Your task to perform on an android device: delete browsing data in the chrome app Image 0: 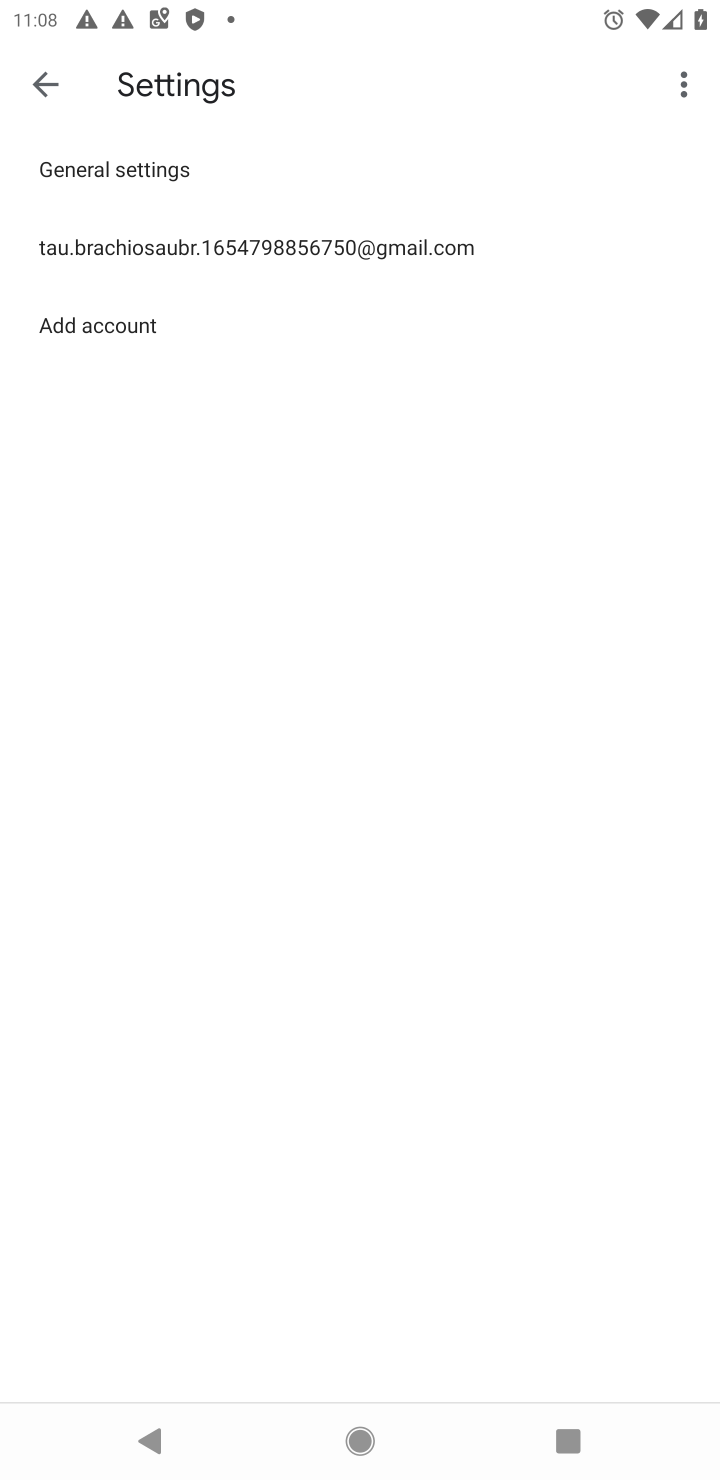
Step 0: press home button
Your task to perform on an android device: delete browsing data in the chrome app Image 1: 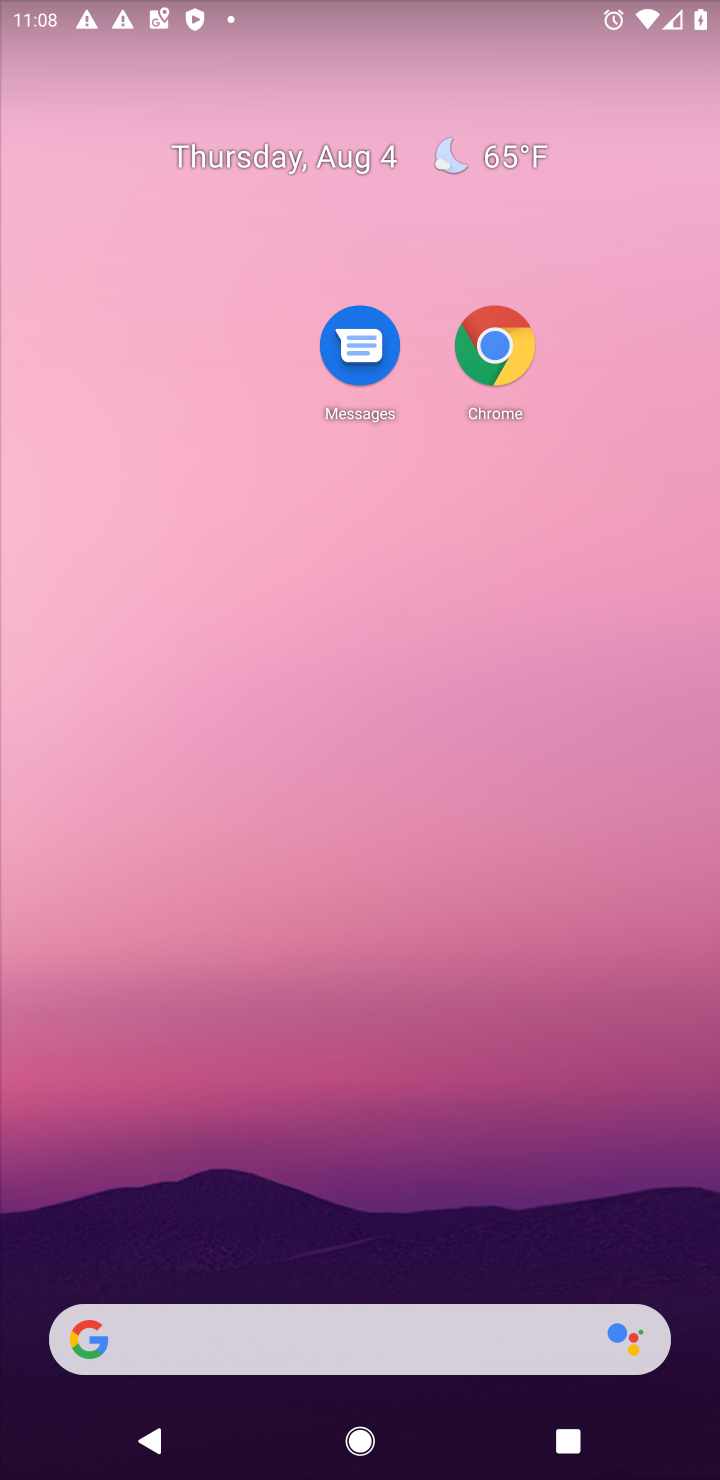
Step 1: drag from (315, 1009) to (361, 0)
Your task to perform on an android device: delete browsing data in the chrome app Image 2: 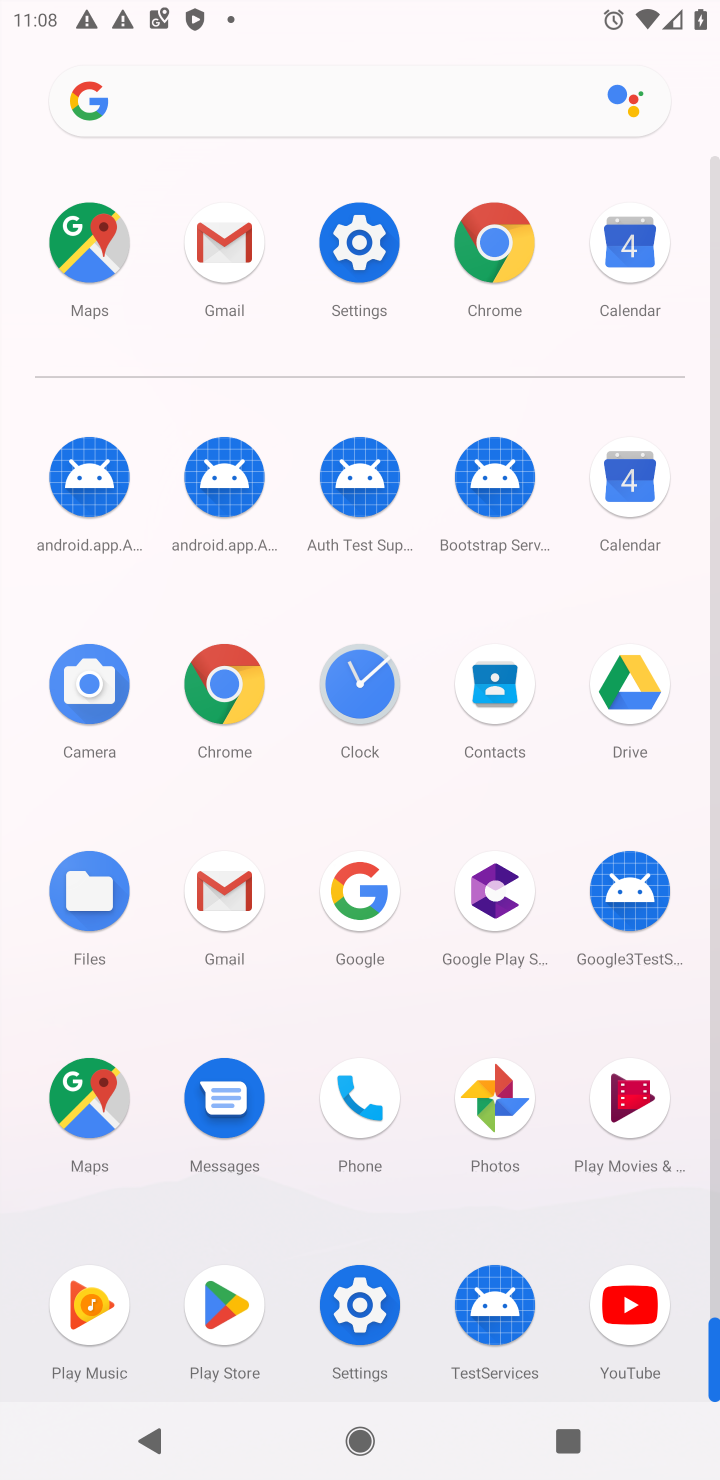
Step 2: click (482, 256)
Your task to perform on an android device: delete browsing data in the chrome app Image 3: 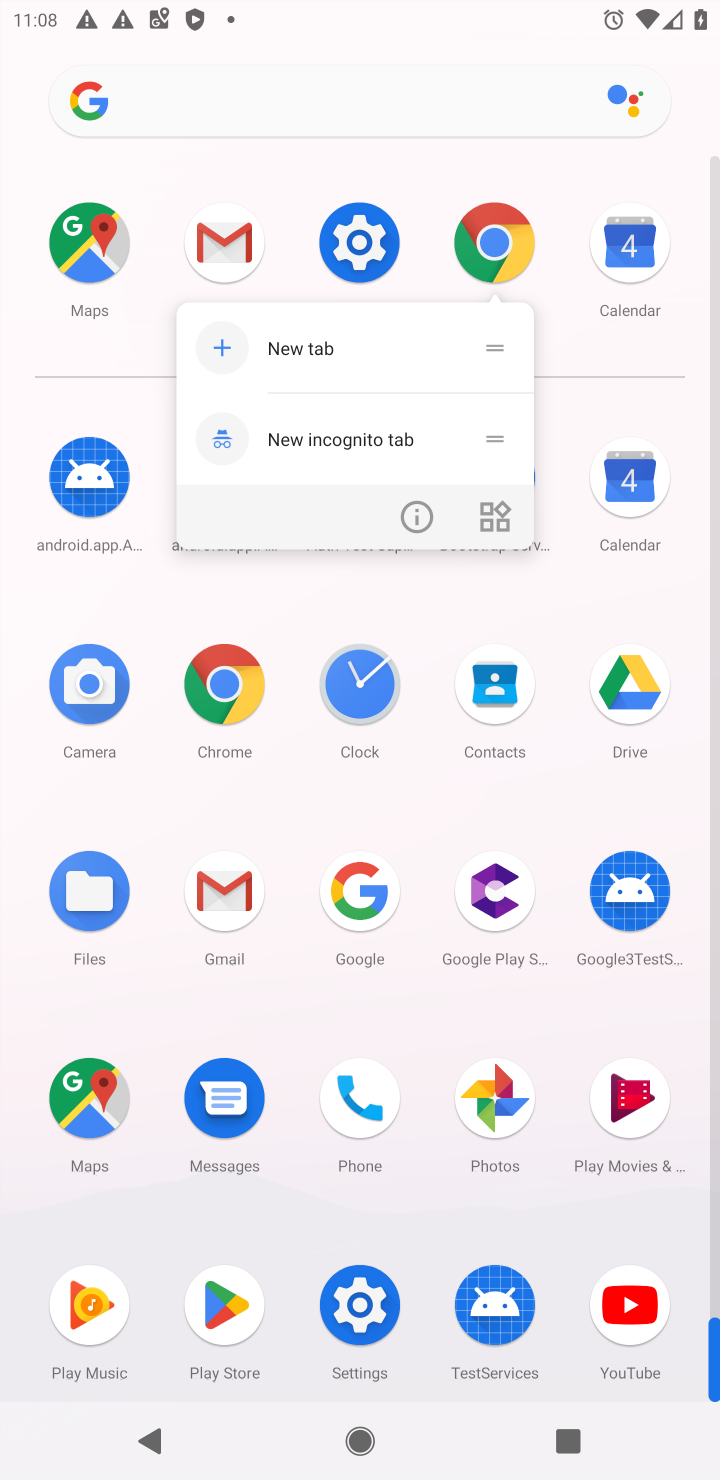
Step 3: click (461, 232)
Your task to perform on an android device: delete browsing data in the chrome app Image 4: 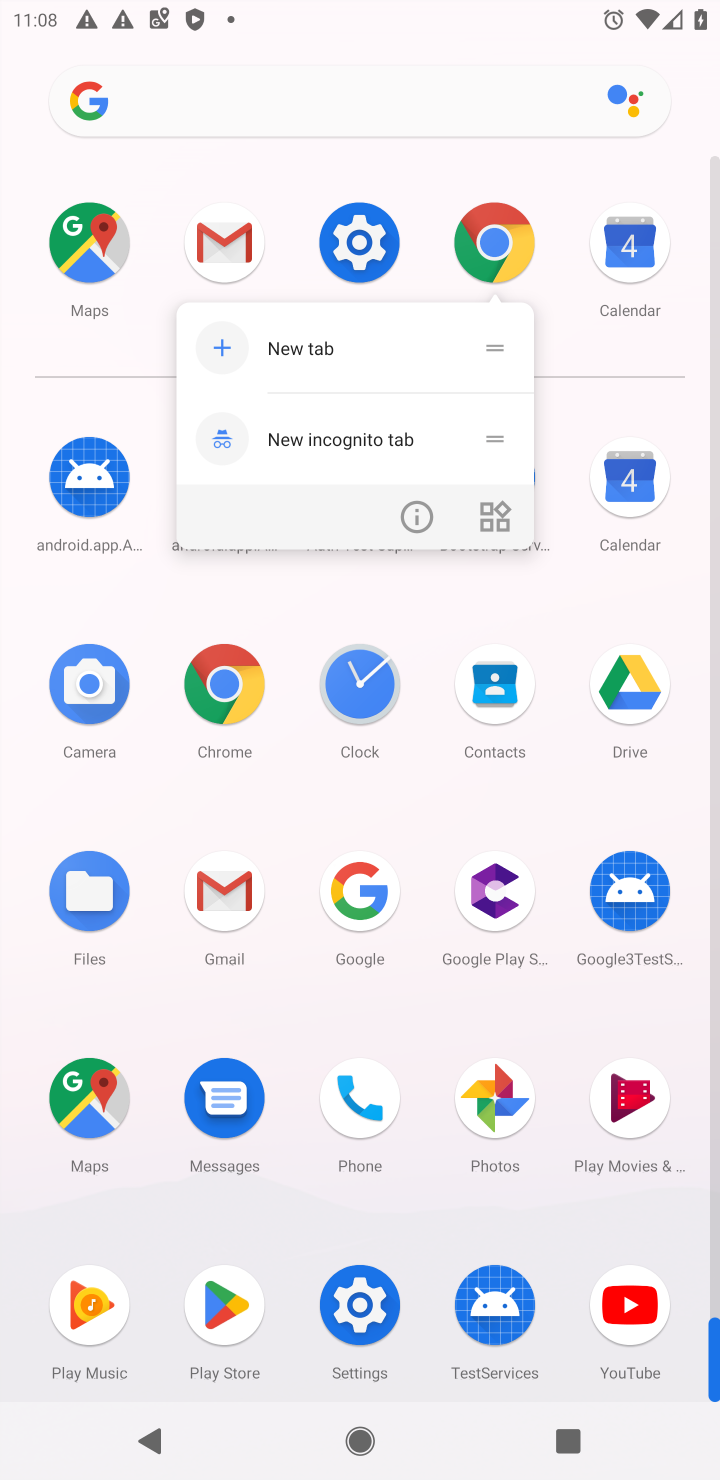
Step 4: click (476, 244)
Your task to perform on an android device: delete browsing data in the chrome app Image 5: 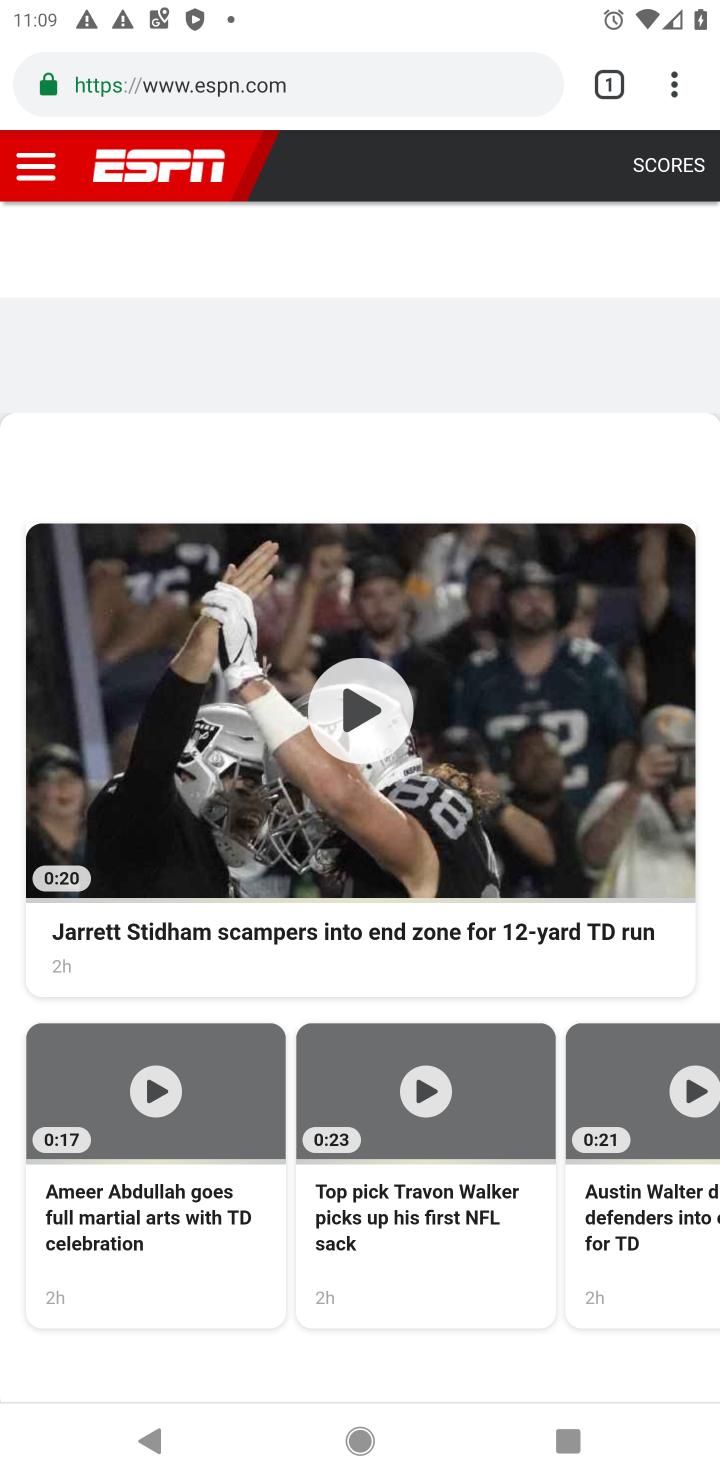
Step 5: drag from (680, 83) to (356, 494)
Your task to perform on an android device: delete browsing data in the chrome app Image 6: 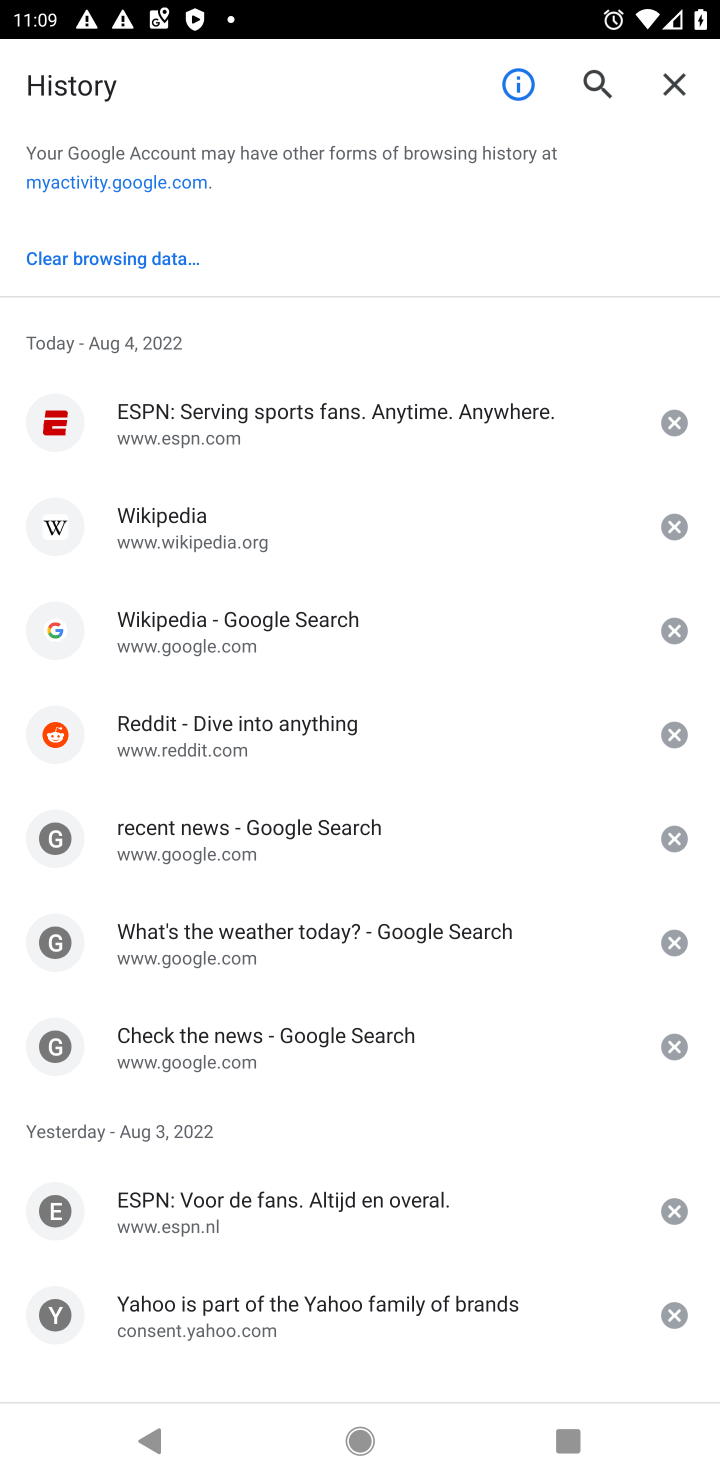
Step 6: click (110, 260)
Your task to perform on an android device: delete browsing data in the chrome app Image 7: 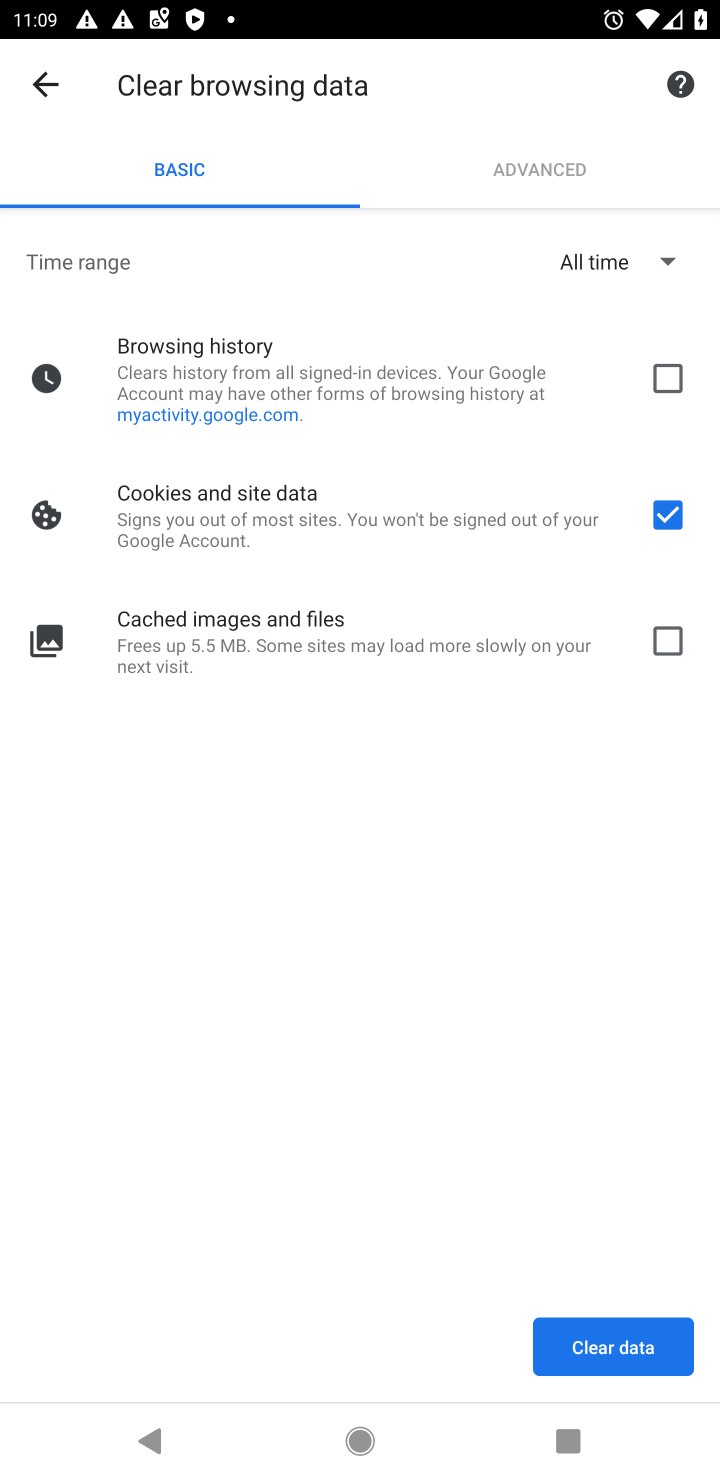
Step 7: click (672, 393)
Your task to perform on an android device: delete browsing data in the chrome app Image 8: 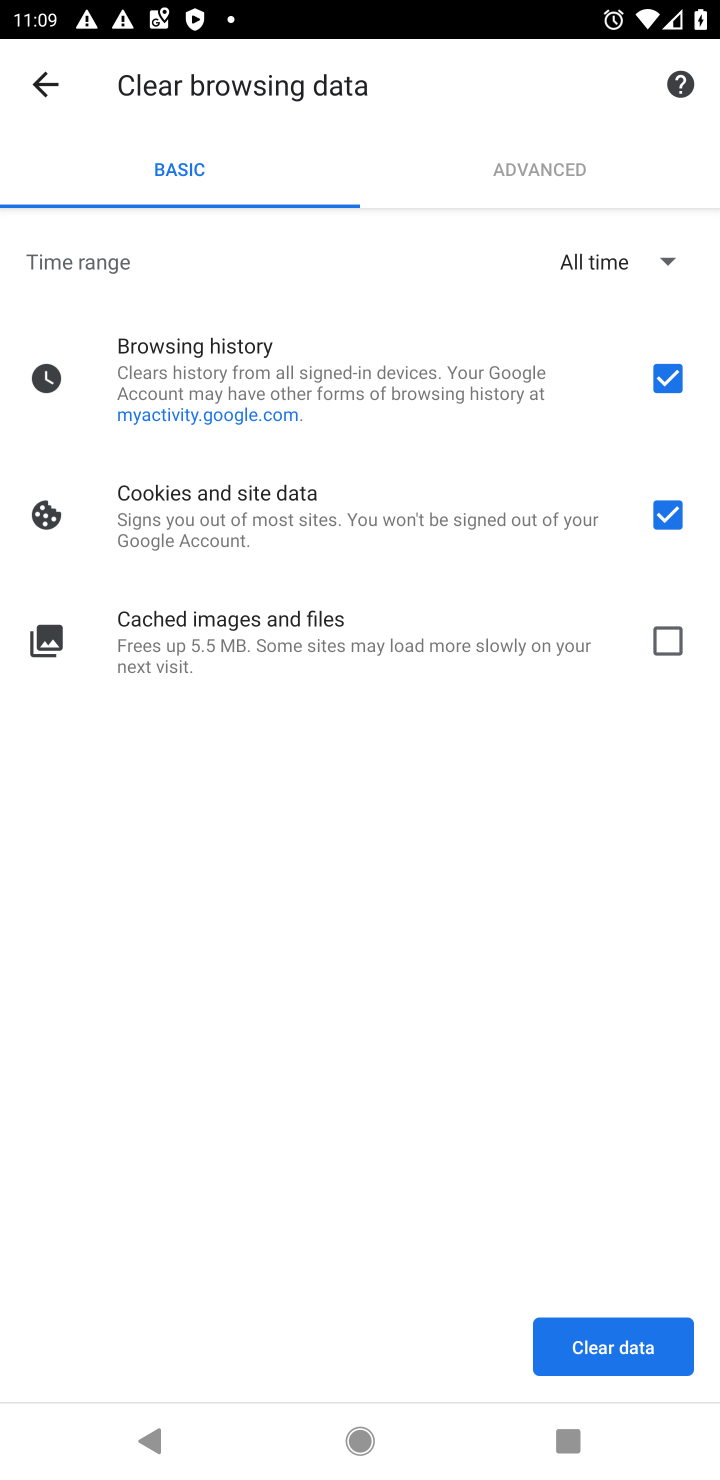
Step 8: click (672, 511)
Your task to perform on an android device: delete browsing data in the chrome app Image 9: 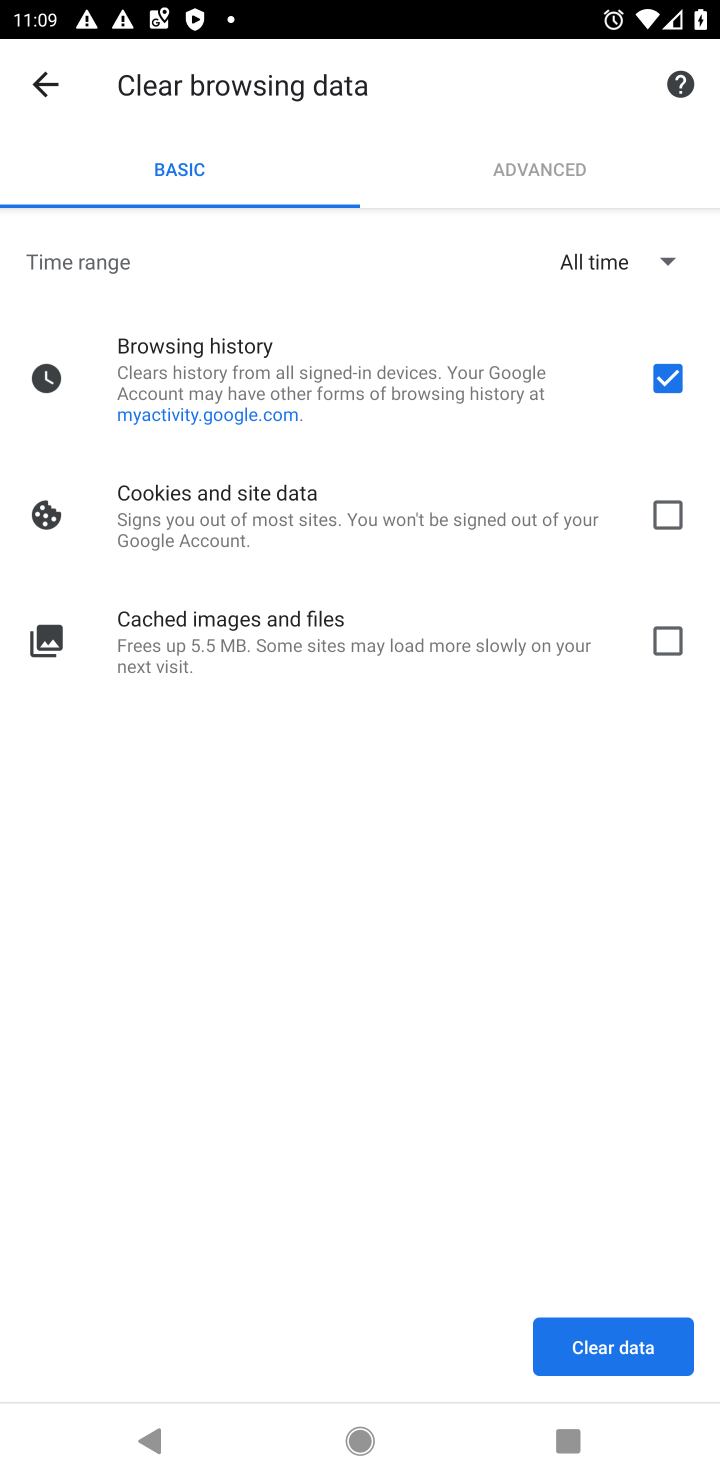
Step 9: task complete